Your task to perform on an android device: add a label to a message in the gmail app Image 0: 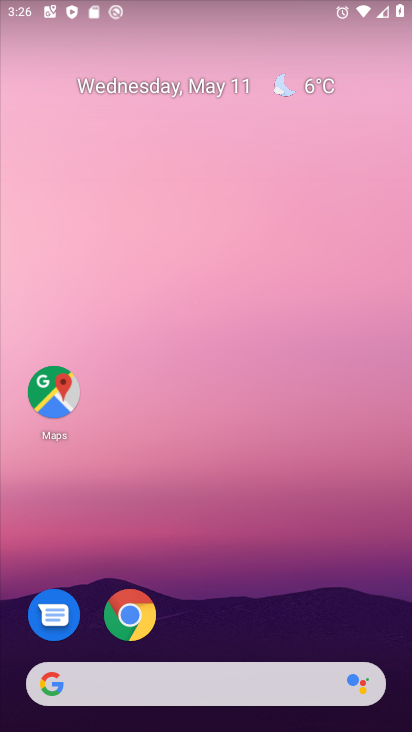
Step 0: drag from (235, 647) to (265, 79)
Your task to perform on an android device: add a label to a message in the gmail app Image 1: 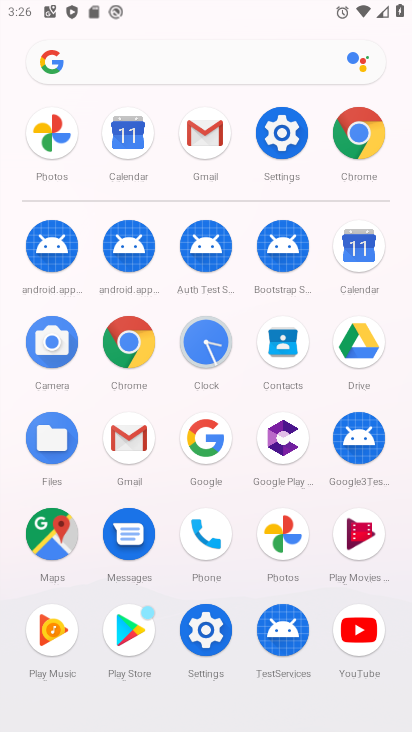
Step 1: click (135, 426)
Your task to perform on an android device: add a label to a message in the gmail app Image 2: 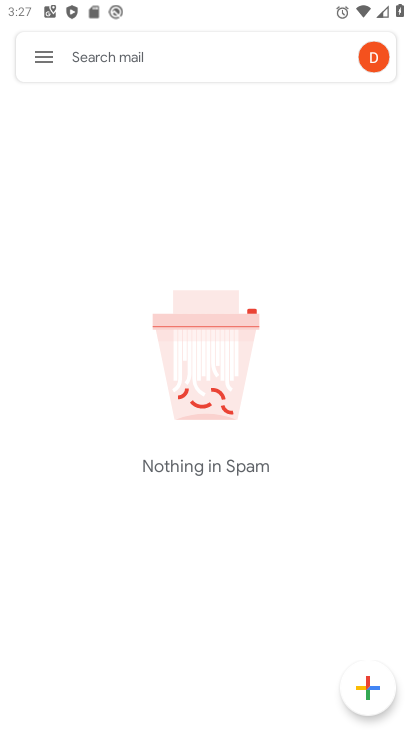
Step 2: click (31, 42)
Your task to perform on an android device: add a label to a message in the gmail app Image 3: 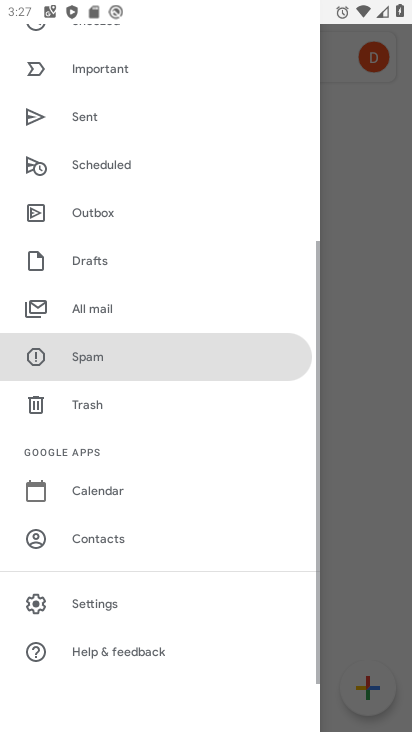
Step 3: click (110, 305)
Your task to perform on an android device: add a label to a message in the gmail app Image 4: 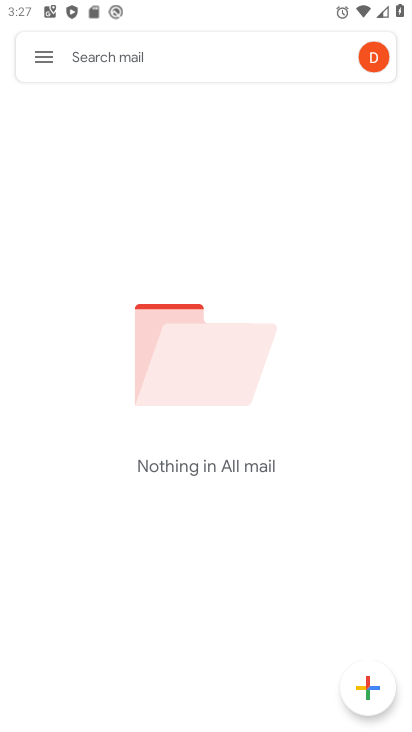
Step 4: task complete